Your task to perform on an android device: Add "lenovo thinkpad" to the cart on amazon.com Image 0: 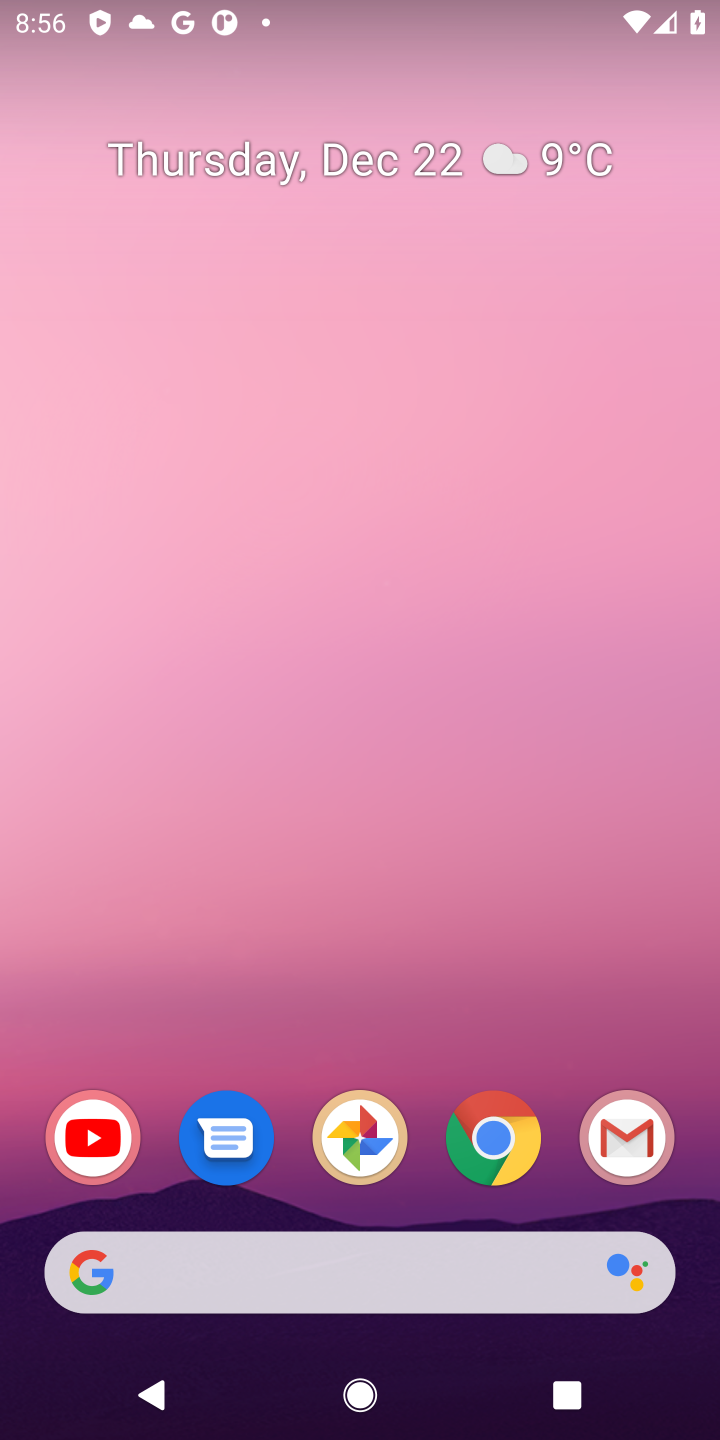
Step 0: click (488, 1159)
Your task to perform on an android device: Add "lenovo thinkpad" to the cart on amazon.com Image 1: 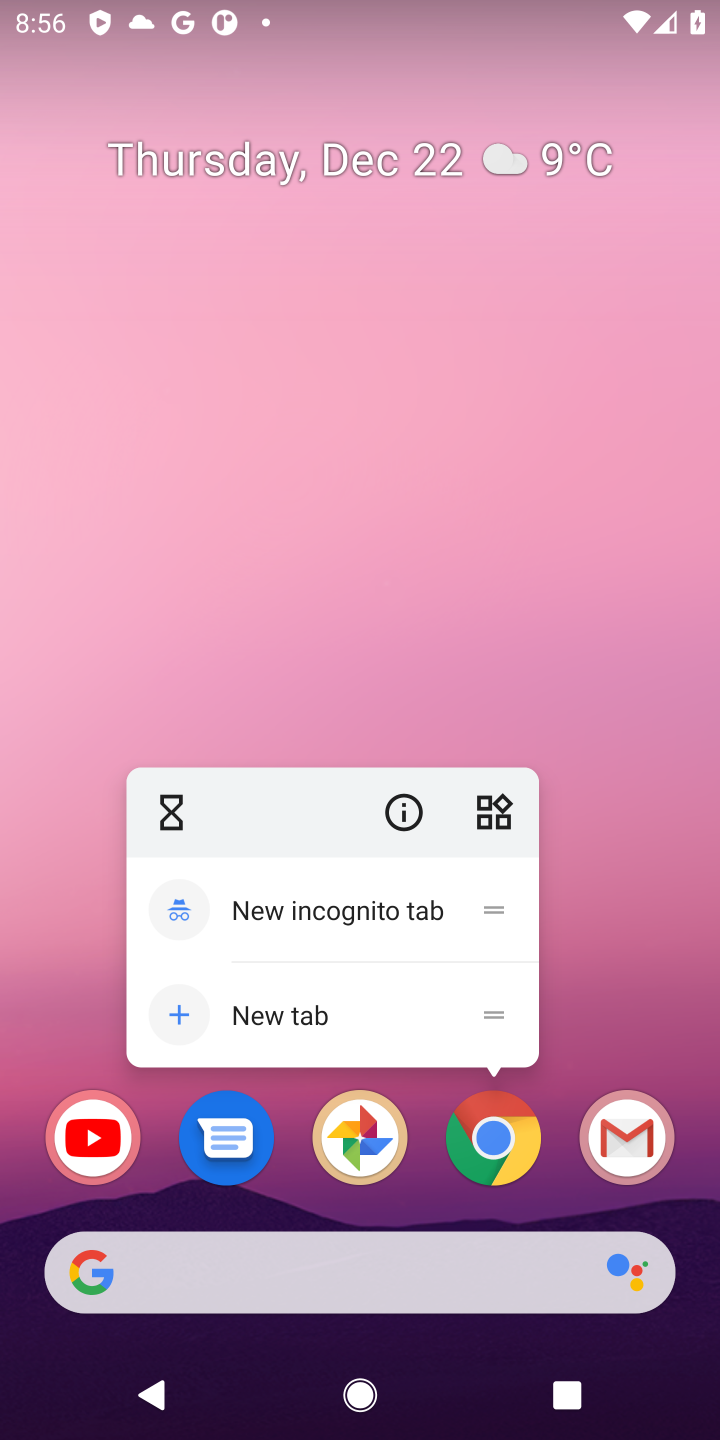
Step 1: click (491, 1159)
Your task to perform on an android device: Add "lenovo thinkpad" to the cart on amazon.com Image 2: 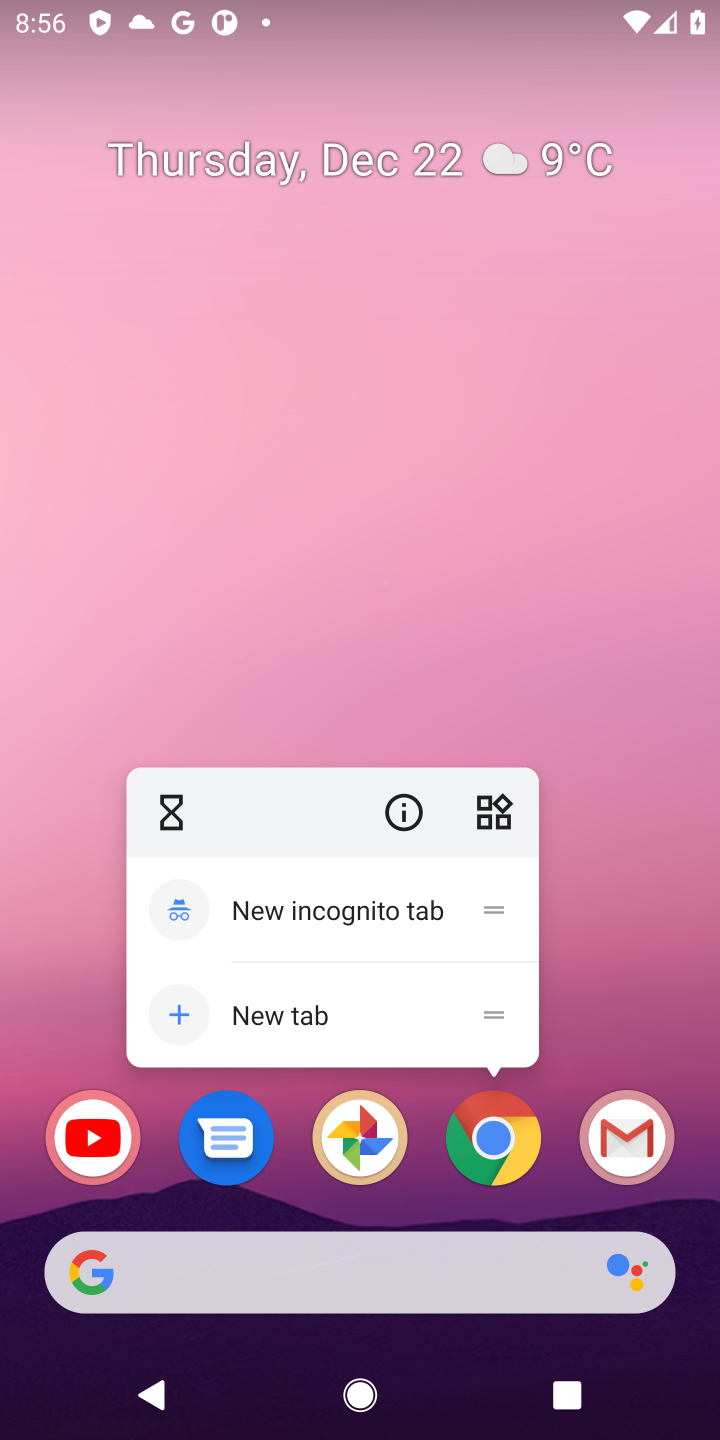
Step 2: click (511, 1122)
Your task to perform on an android device: Add "lenovo thinkpad" to the cart on amazon.com Image 3: 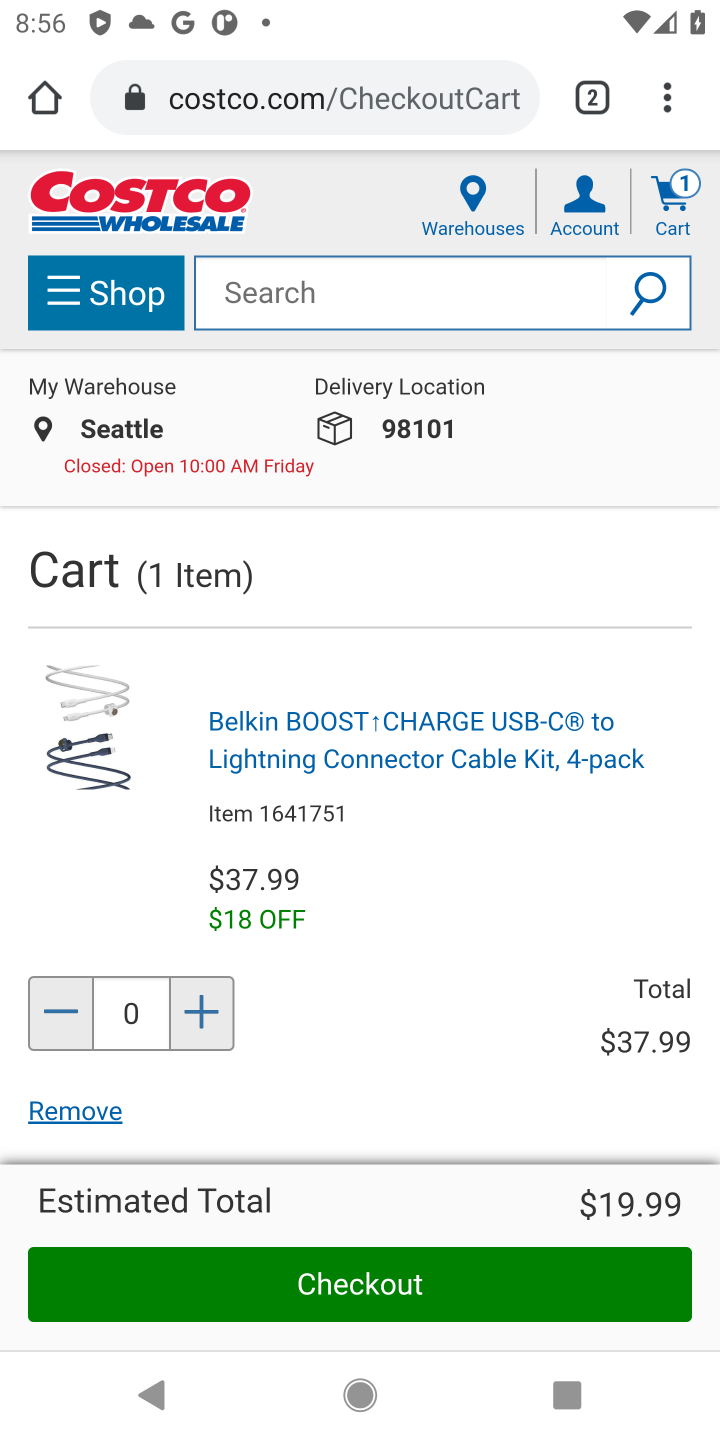
Step 3: click (379, 87)
Your task to perform on an android device: Add "lenovo thinkpad" to the cart on amazon.com Image 4: 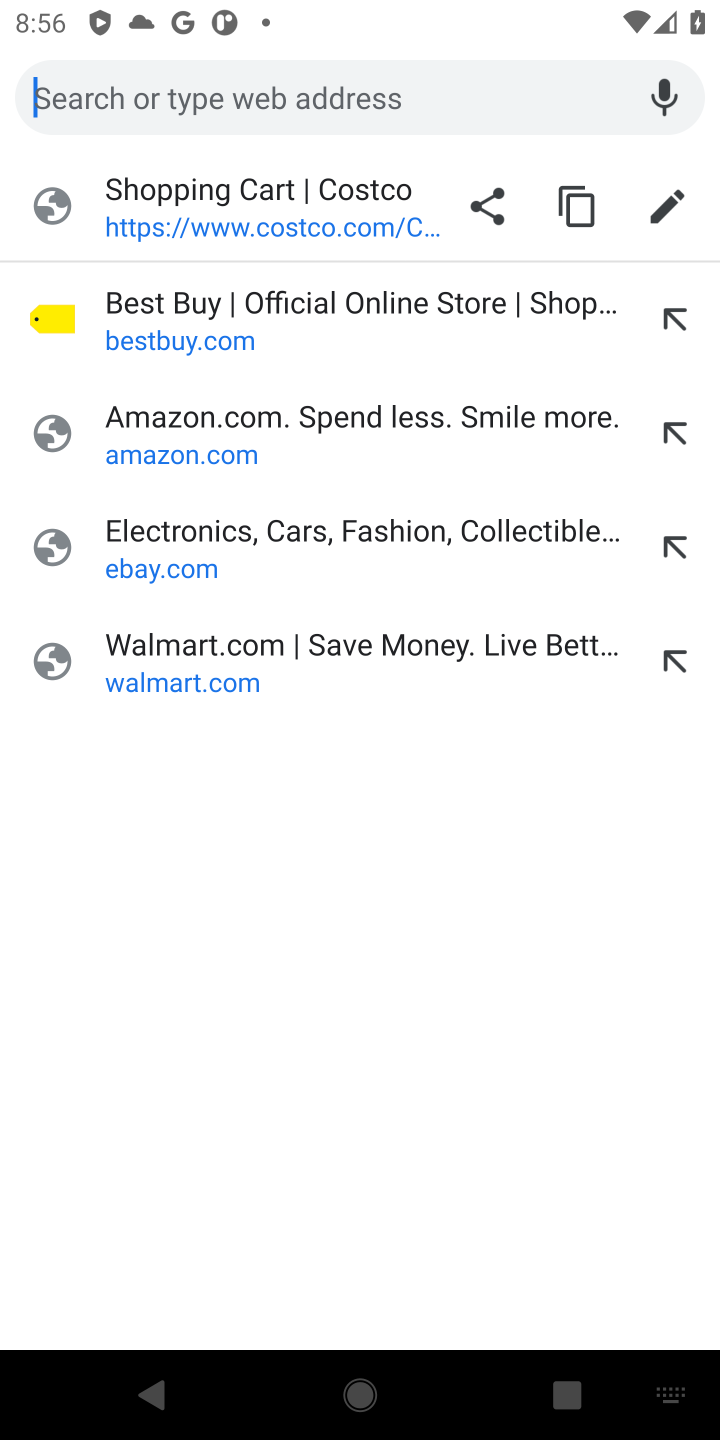
Step 4: click (235, 448)
Your task to perform on an android device: Add "lenovo thinkpad" to the cart on amazon.com Image 5: 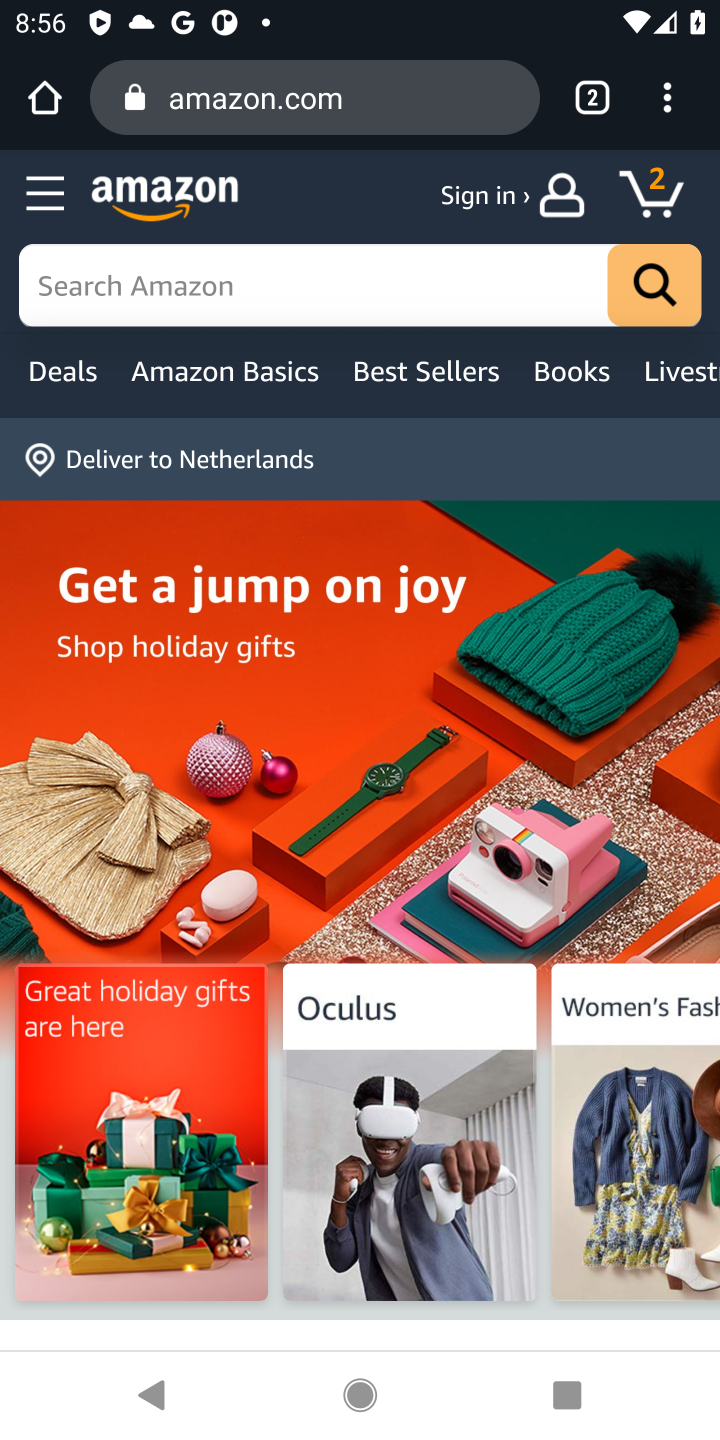
Step 5: click (363, 306)
Your task to perform on an android device: Add "lenovo thinkpad" to the cart on amazon.com Image 6: 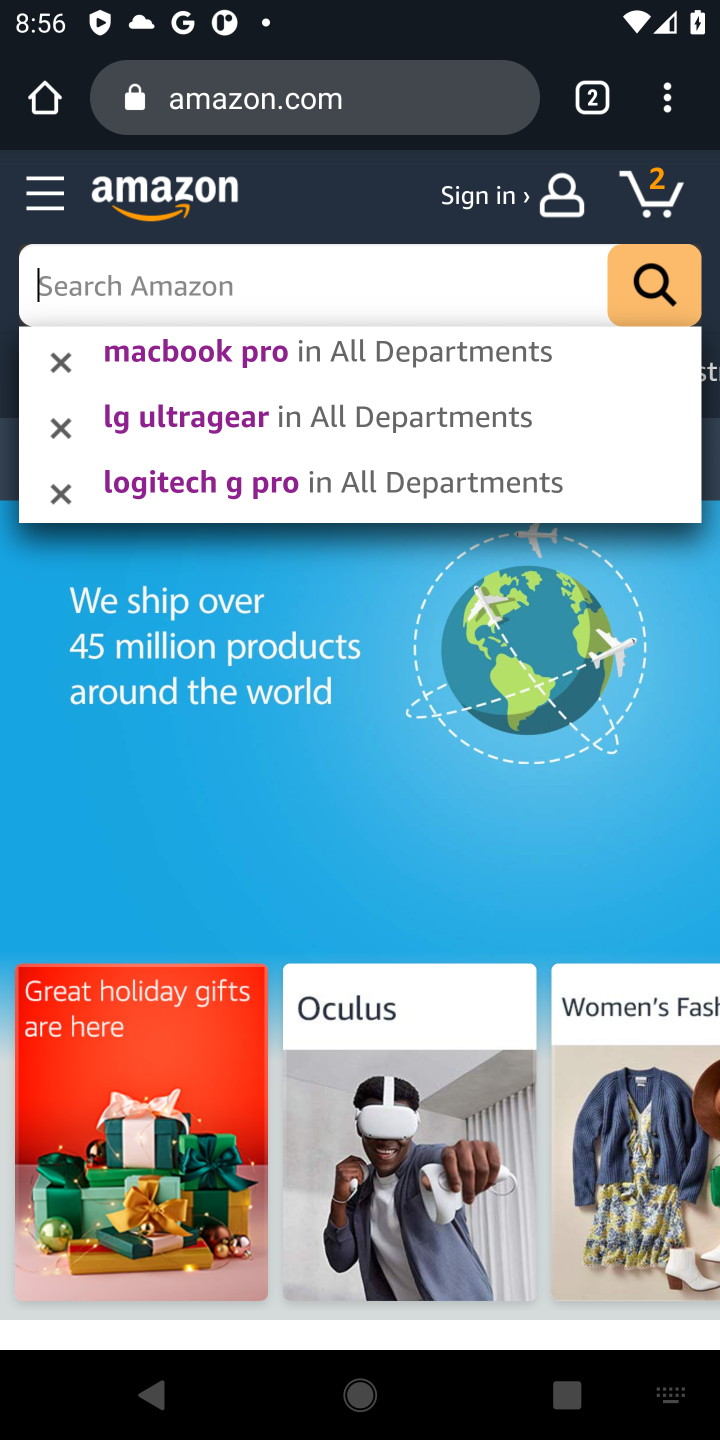
Step 6: type "lenovo thinkpad"
Your task to perform on an android device: Add "lenovo thinkpad" to the cart on amazon.com Image 7: 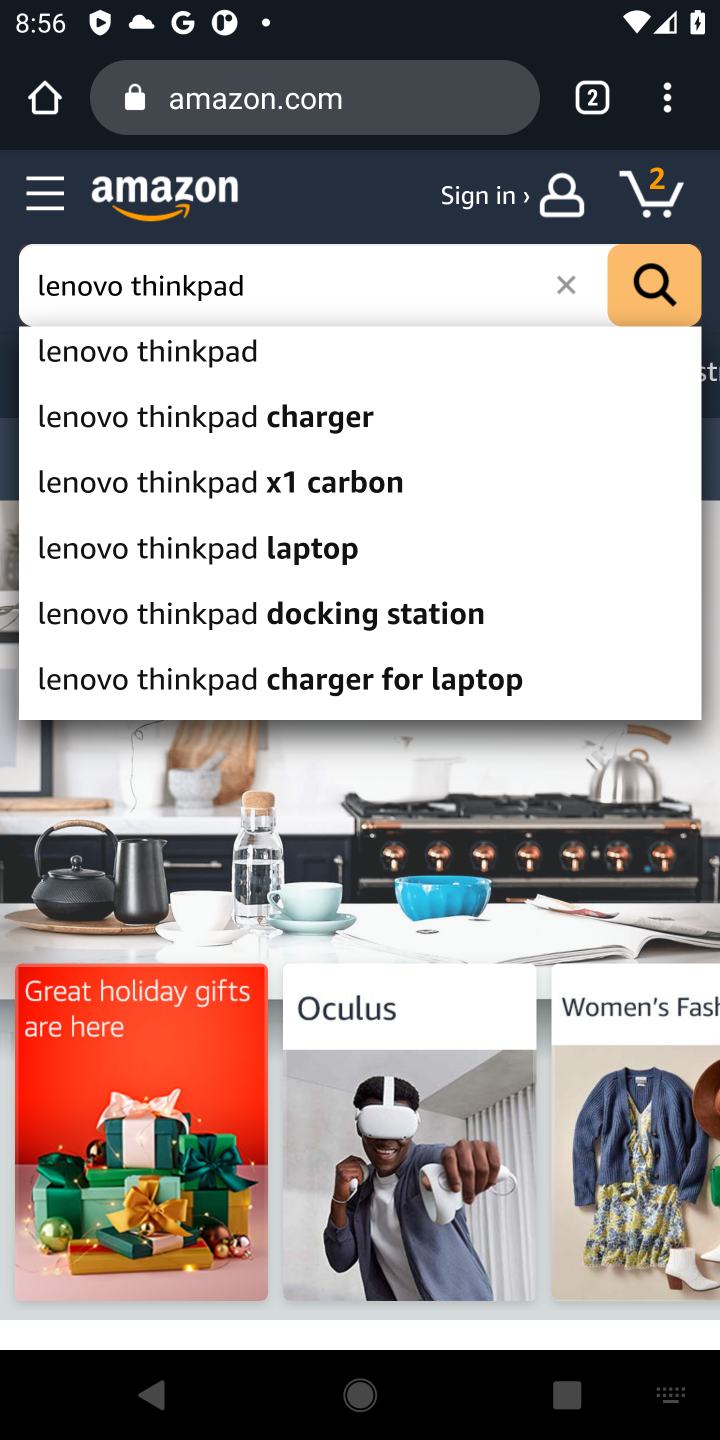
Step 7: click (640, 294)
Your task to perform on an android device: Add "lenovo thinkpad" to the cart on amazon.com Image 8: 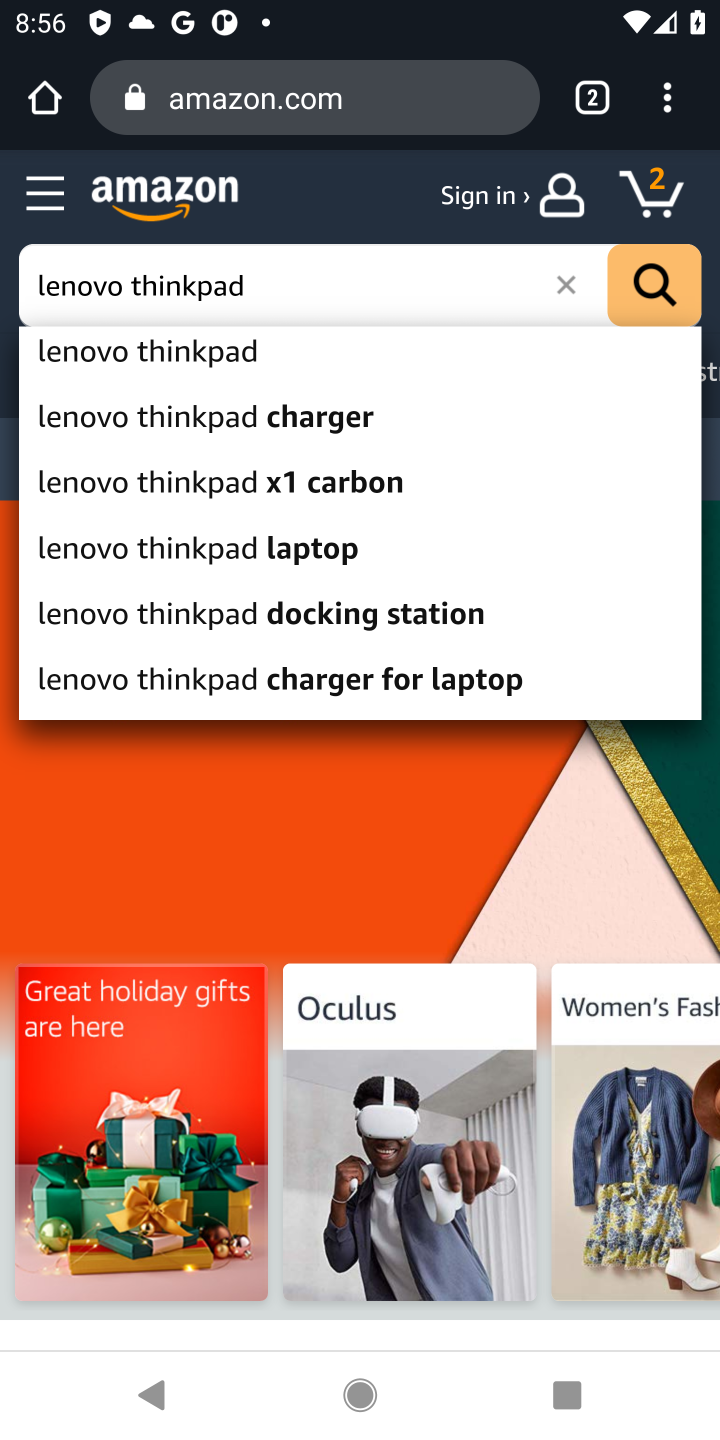
Step 8: click (646, 298)
Your task to perform on an android device: Add "lenovo thinkpad" to the cart on amazon.com Image 9: 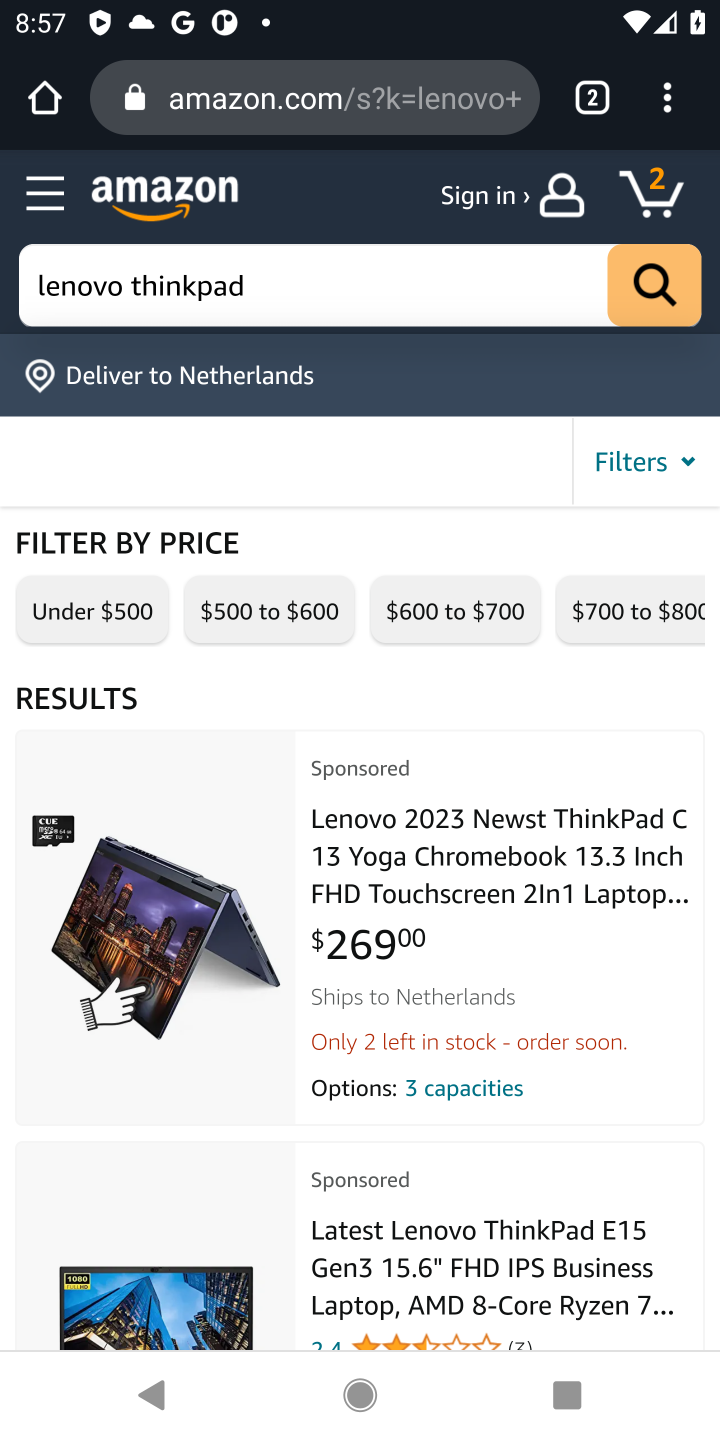
Step 9: drag from (573, 1136) to (567, 547)
Your task to perform on an android device: Add "lenovo thinkpad" to the cart on amazon.com Image 10: 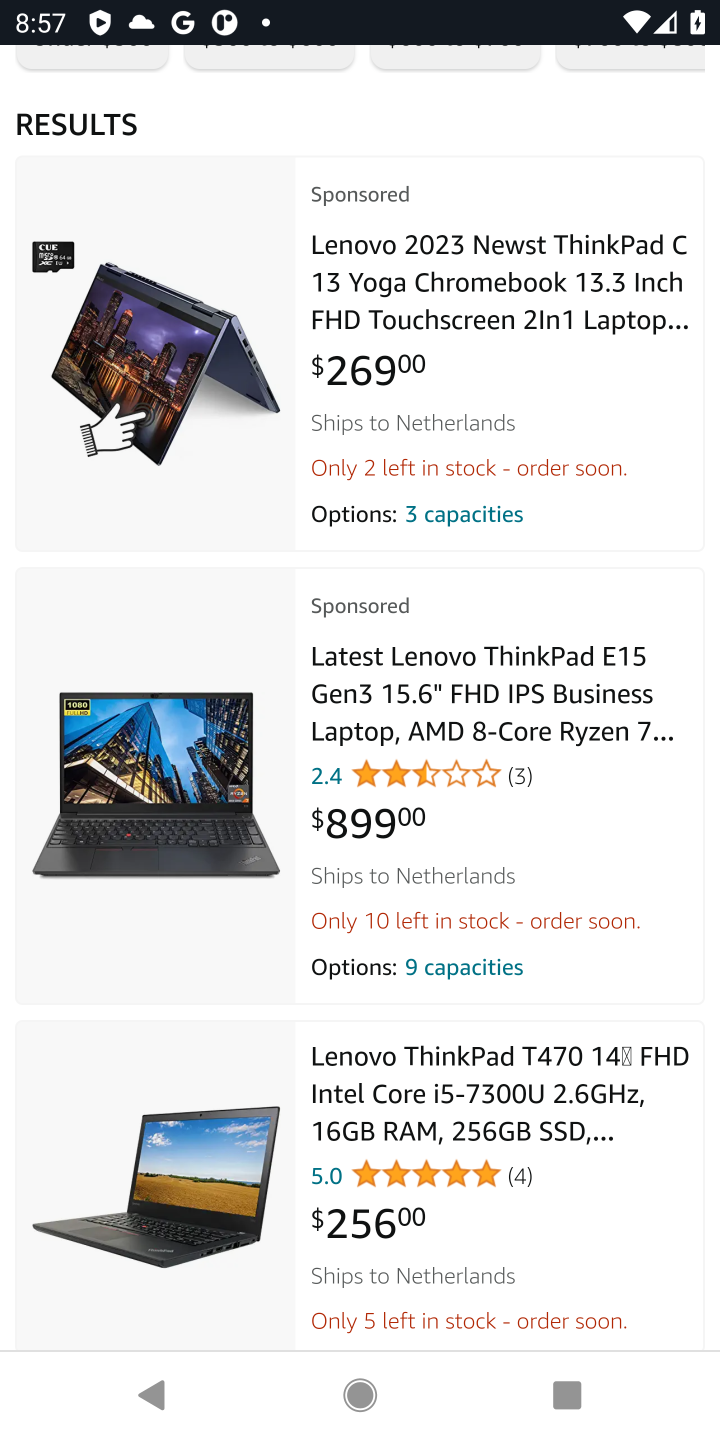
Step 10: click (424, 1086)
Your task to perform on an android device: Add "lenovo thinkpad" to the cart on amazon.com Image 11: 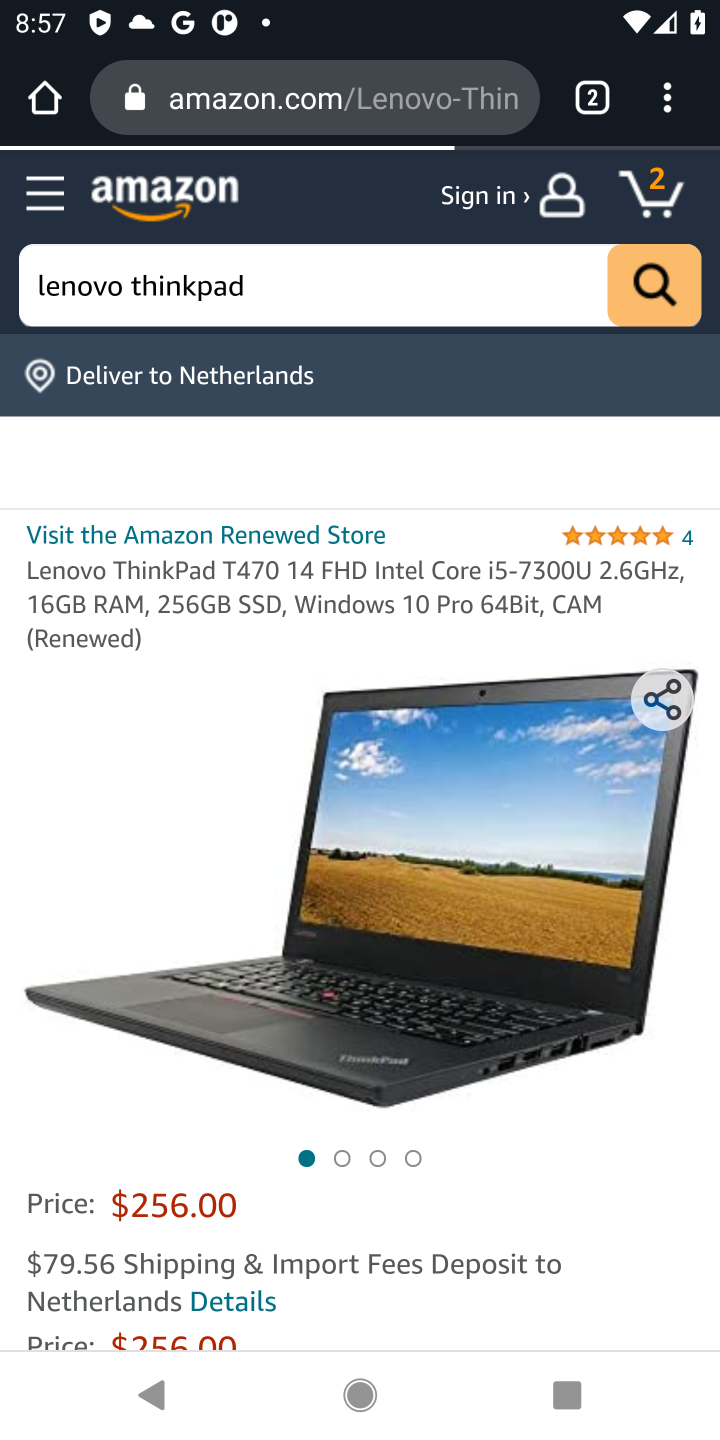
Step 11: drag from (509, 1225) to (490, 422)
Your task to perform on an android device: Add "lenovo thinkpad" to the cart on amazon.com Image 12: 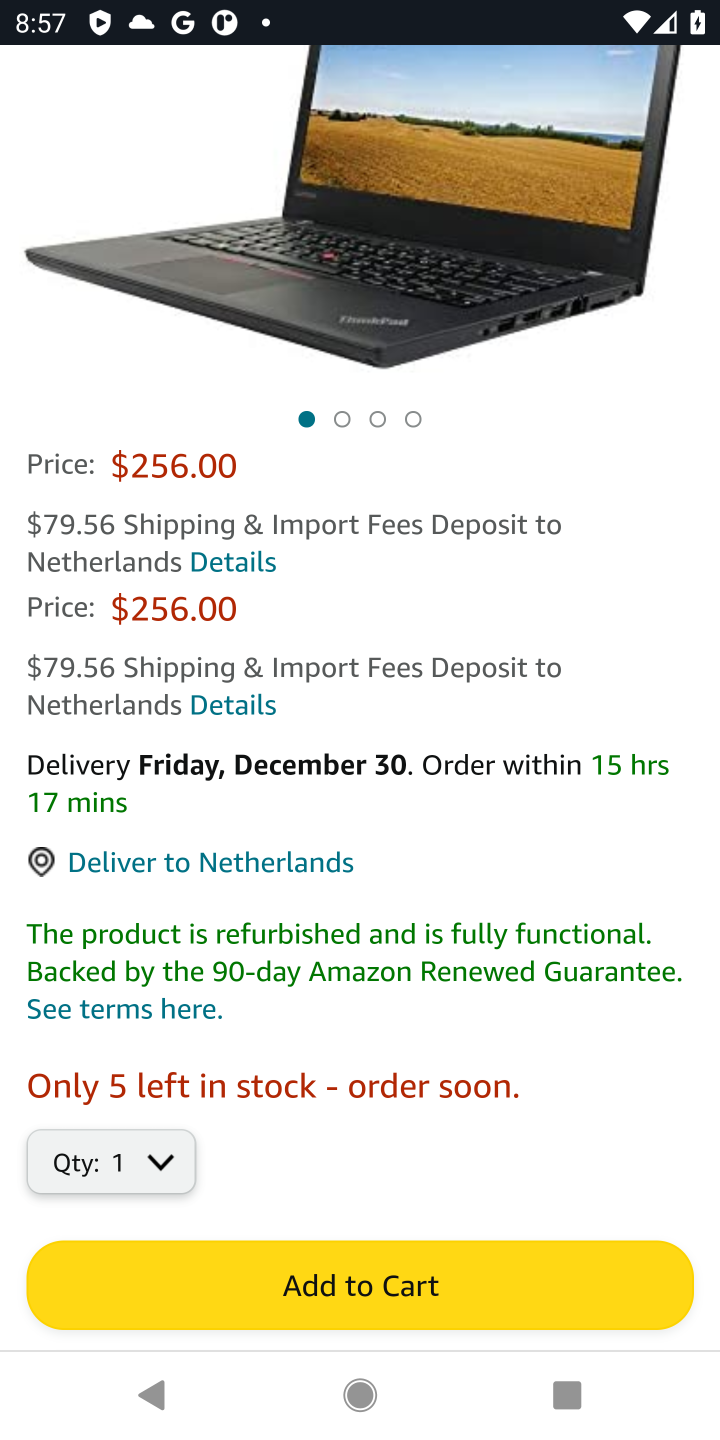
Step 12: click (365, 1306)
Your task to perform on an android device: Add "lenovo thinkpad" to the cart on amazon.com Image 13: 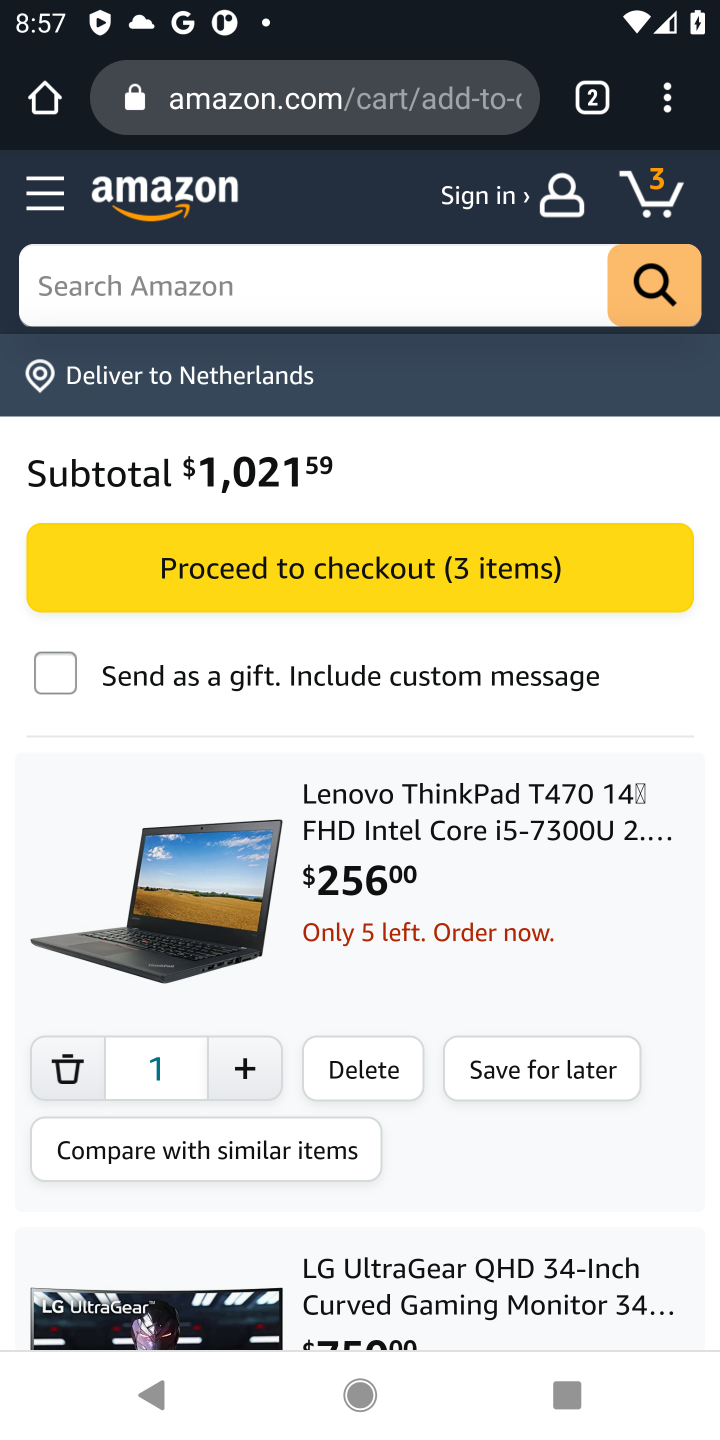
Step 13: task complete